Your task to perform on an android device: toggle wifi Image 0: 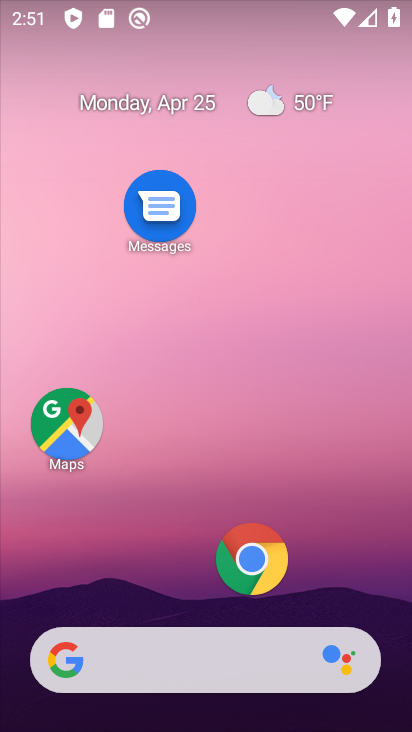
Step 0: drag from (167, 571) to (273, 82)
Your task to perform on an android device: toggle wifi Image 1: 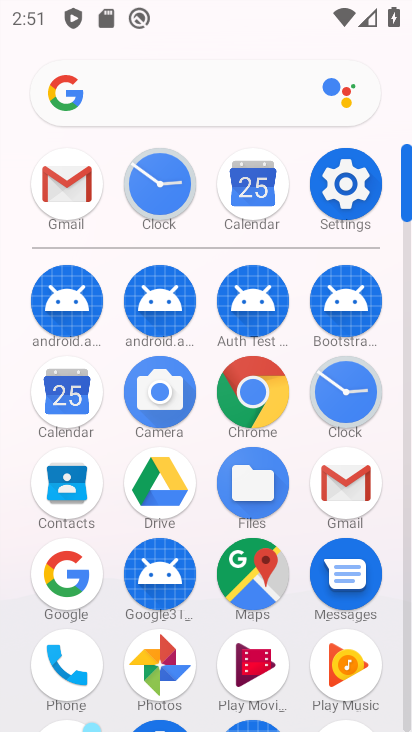
Step 1: click (366, 201)
Your task to perform on an android device: toggle wifi Image 2: 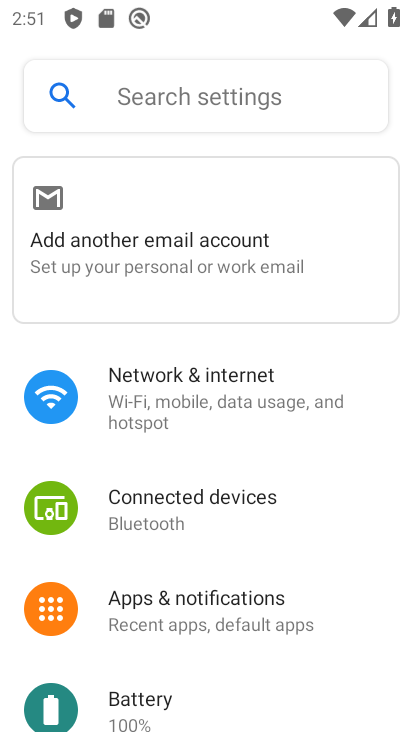
Step 2: click (245, 389)
Your task to perform on an android device: toggle wifi Image 3: 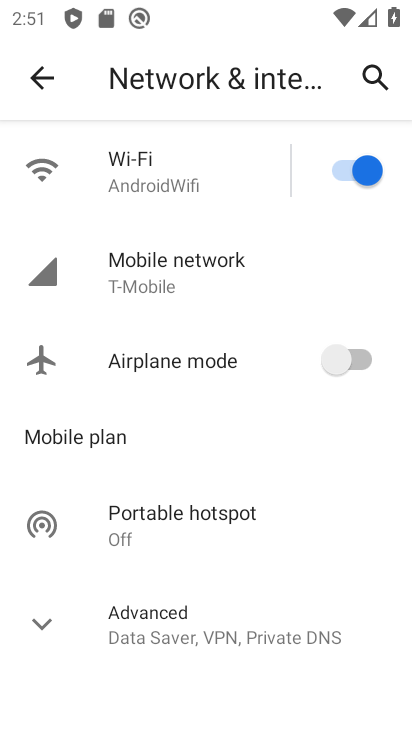
Step 3: click (335, 169)
Your task to perform on an android device: toggle wifi Image 4: 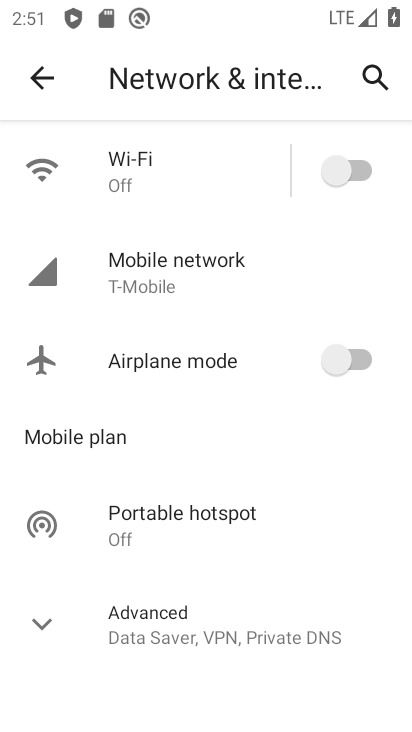
Step 4: task complete